Your task to perform on an android device: open a new tab in the chrome app Image 0: 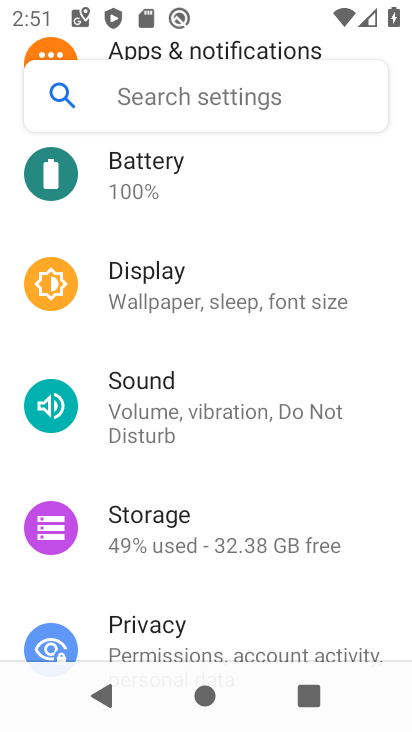
Step 0: press home button
Your task to perform on an android device: open a new tab in the chrome app Image 1: 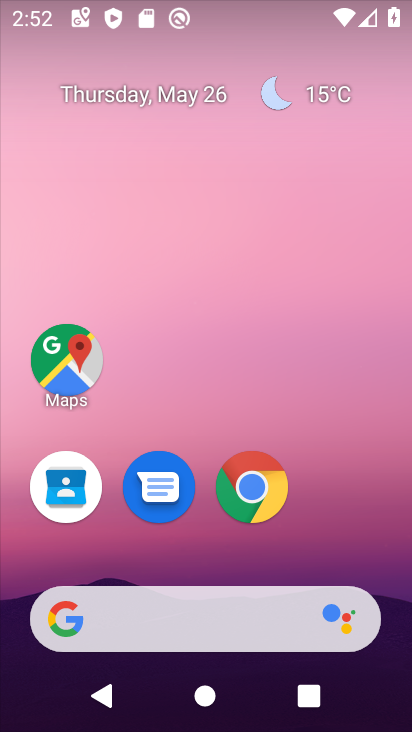
Step 1: click (251, 501)
Your task to perform on an android device: open a new tab in the chrome app Image 2: 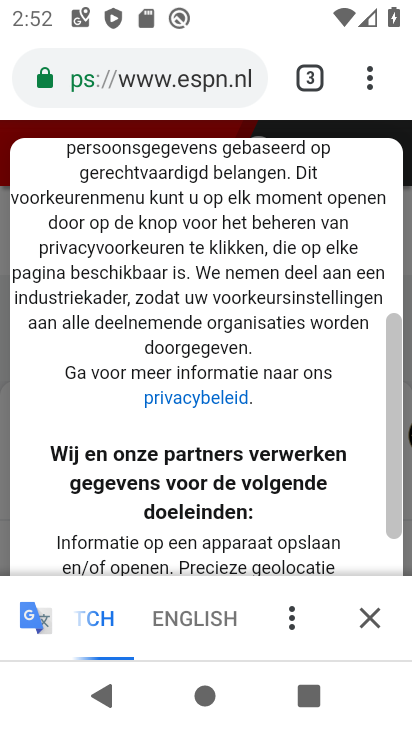
Step 2: click (302, 69)
Your task to perform on an android device: open a new tab in the chrome app Image 3: 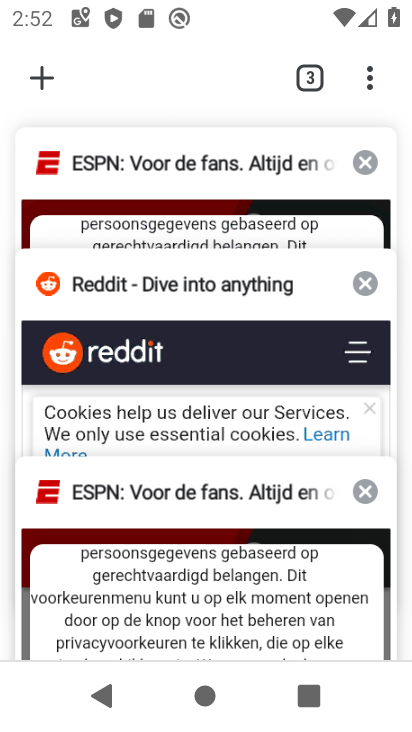
Step 3: click (48, 73)
Your task to perform on an android device: open a new tab in the chrome app Image 4: 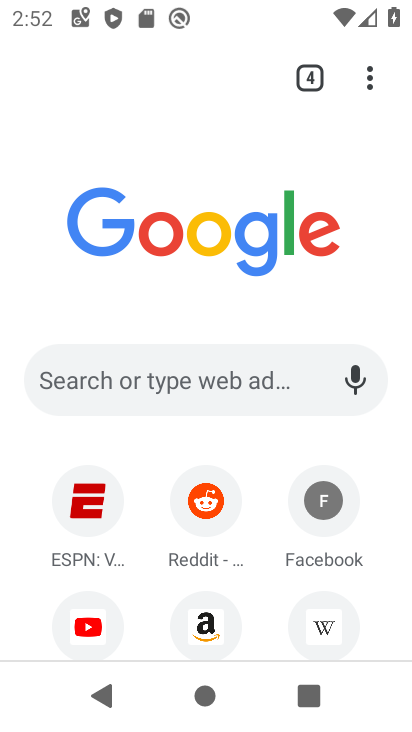
Step 4: task complete